Your task to perform on an android device: Play the last video I watched on Youtube Image 0: 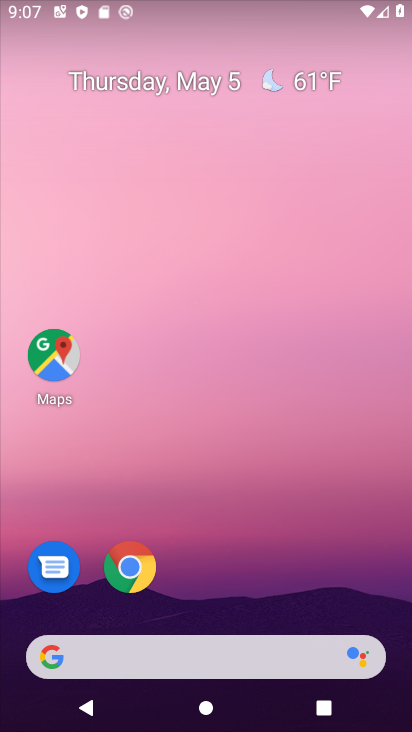
Step 0: drag from (268, 590) to (200, 206)
Your task to perform on an android device: Play the last video I watched on Youtube Image 1: 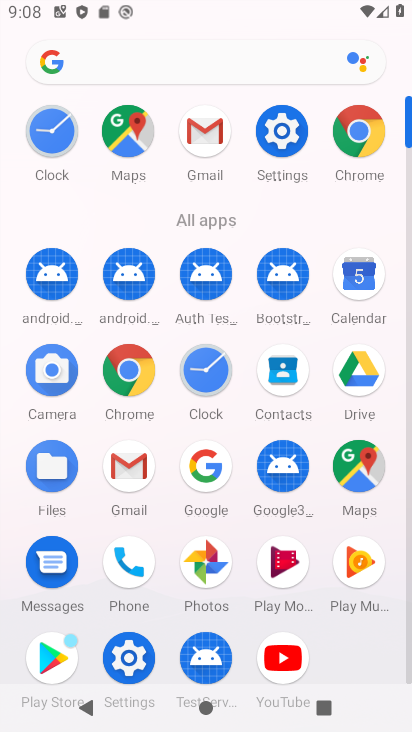
Step 1: click (283, 652)
Your task to perform on an android device: Play the last video I watched on Youtube Image 2: 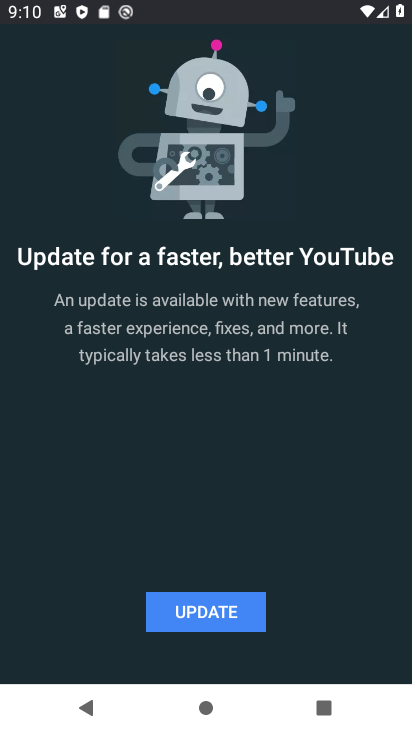
Step 2: click (237, 601)
Your task to perform on an android device: Play the last video I watched on Youtube Image 3: 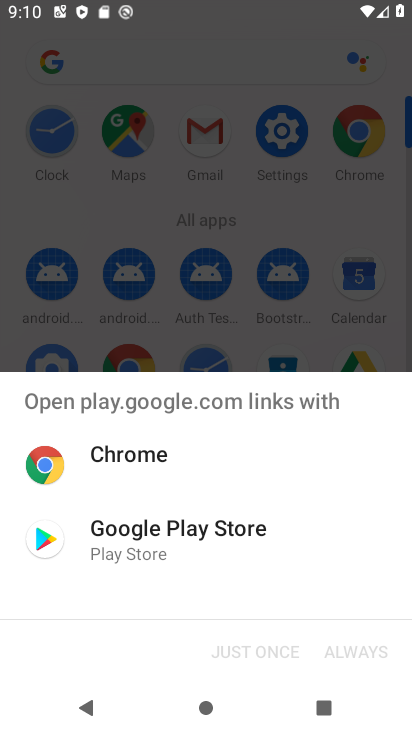
Step 3: click (237, 601)
Your task to perform on an android device: Play the last video I watched on Youtube Image 4: 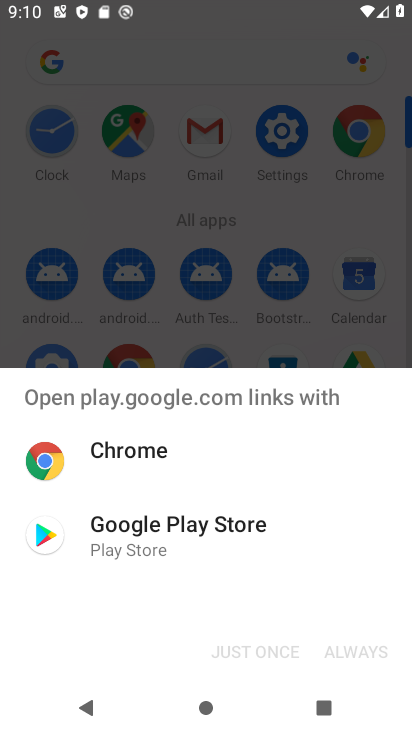
Step 4: click (207, 545)
Your task to perform on an android device: Play the last video I watched on Youtube Image 5: 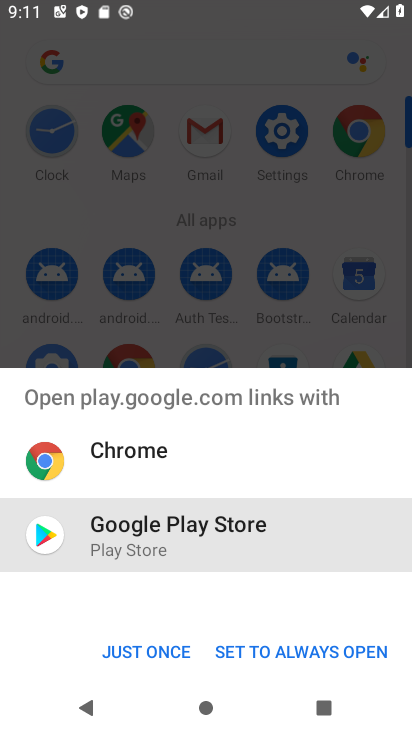
Step 5: click (157, 653)
Your task to perform on an android device: Play the last video I watched on Youtube Image 6: 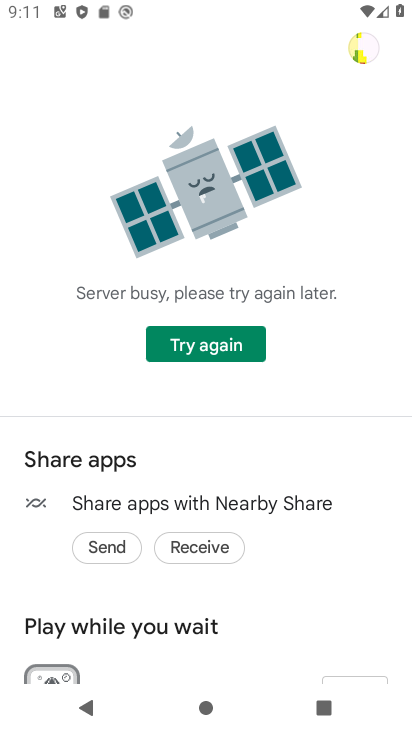
Step 6: click (232, 352)
Your task to perform on an android device: Play the last video I watched on Youtube Image 7: 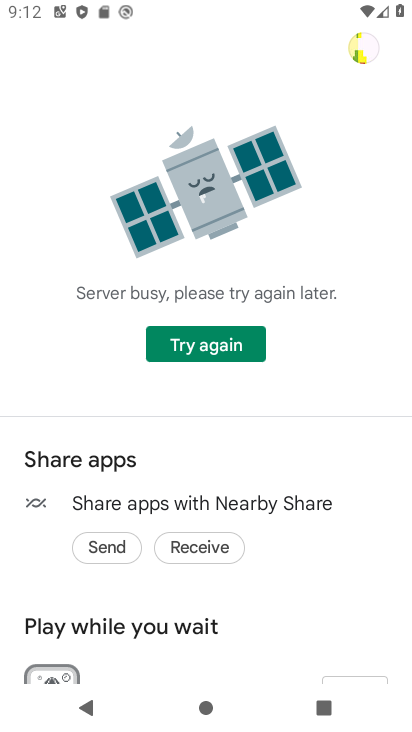
Step 7: task complete